Your task to perform on an android device: Open the web browser Image 0: 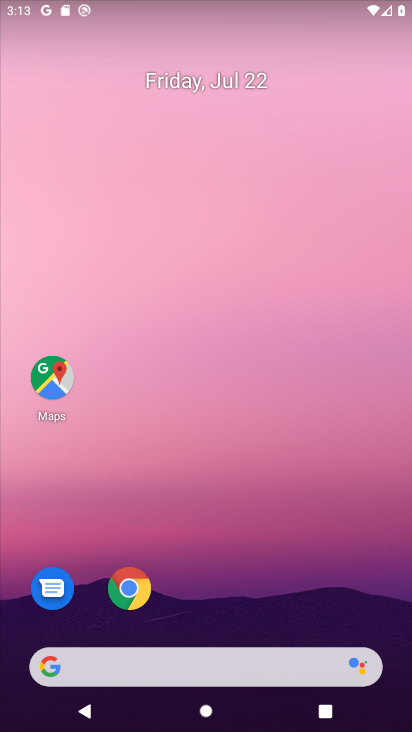
Step 0: drag from (287, 454) to (320, 95)
Your task to perform on an android device: Open the web browser Image 1: 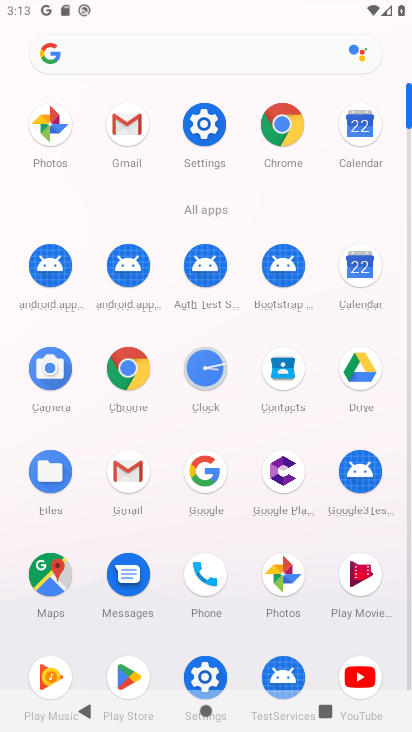
Step 1: click (124, 368)
Your task to perform on an android device: Open the web browser Image 2: 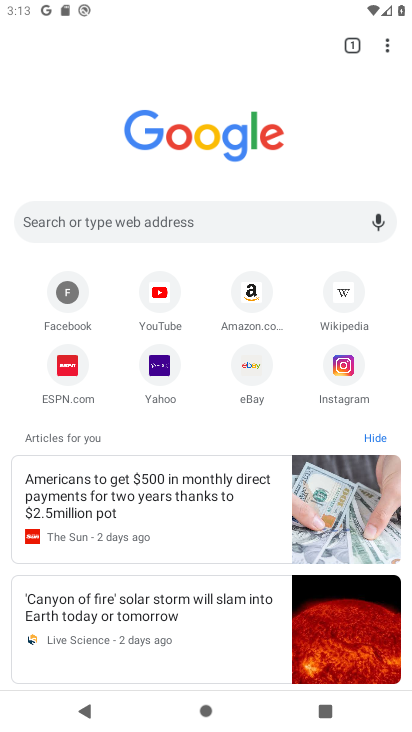
Step 2: click (261, 213)
Your task to perform on an android device: Open the web browser Image 3: 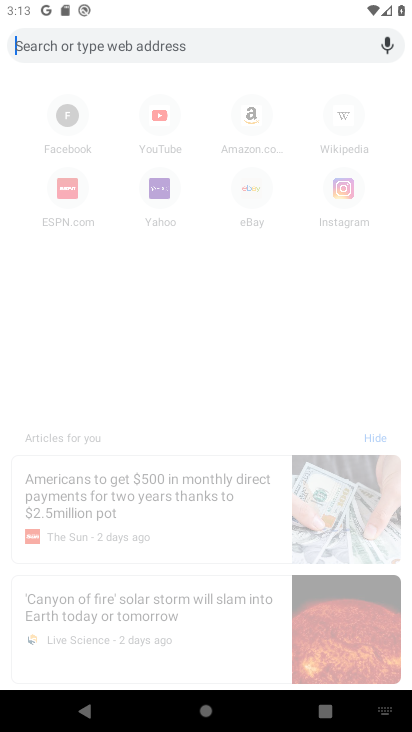
Step 3: type " web browser"
Your task to perform on an android device: Open the web browser Image 4: 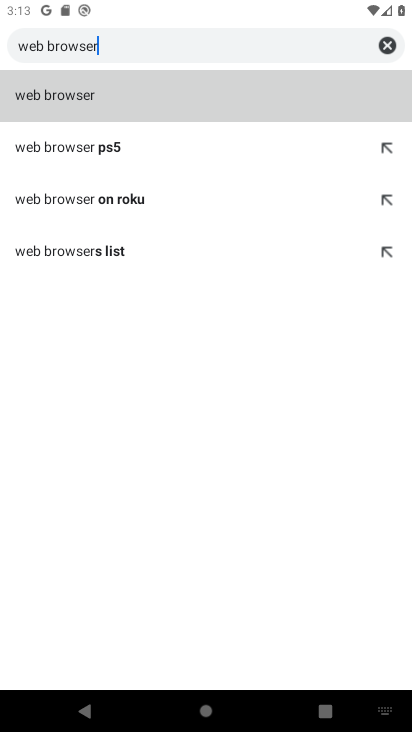
Step 4: click (100, 95)
Your task to perform on an android device: Open the web browser Image 5: 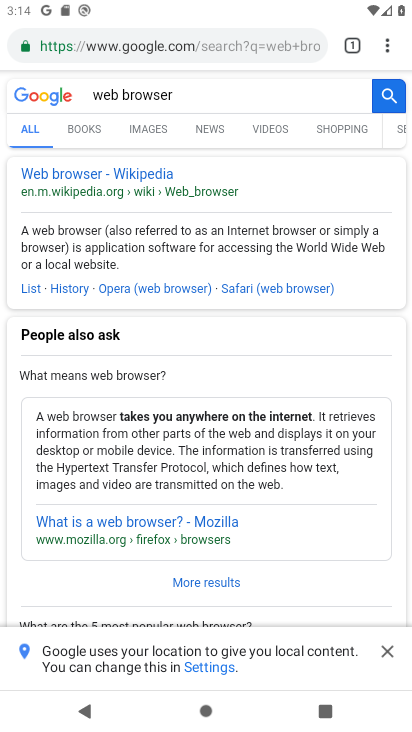
Step 5: click (45, 175)
Your task to perform on an android device: Open the web browser Image 6: 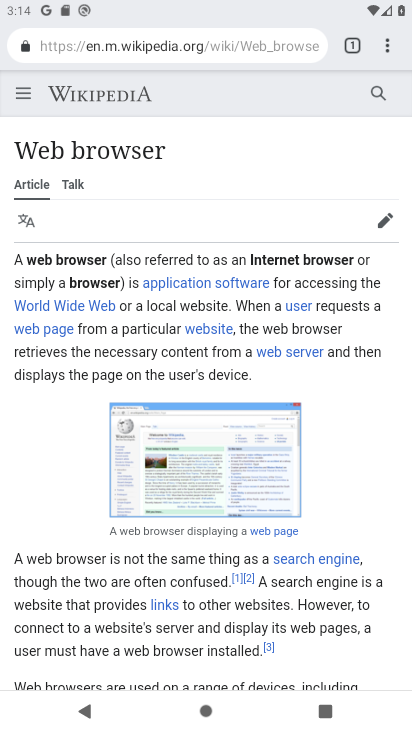
Step 6: task complete